Your task to perform on an android device: Open Chrome and go to settings Image 0: 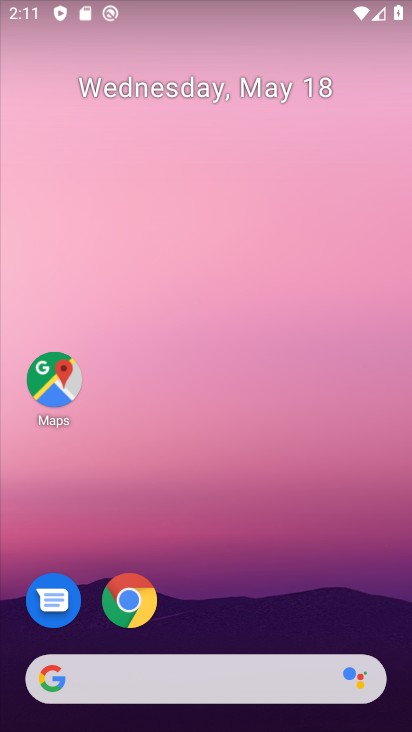
Step 0: press home button
Your task to perform on an android device: Open Chrome and go to settings Image 1: 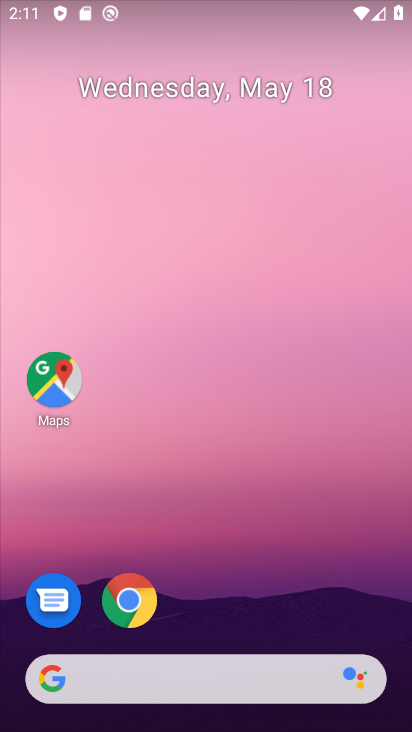
Step 1: click (130, 613)
Your task to perform on an android device: Open Chrome and go to settings Image 2: 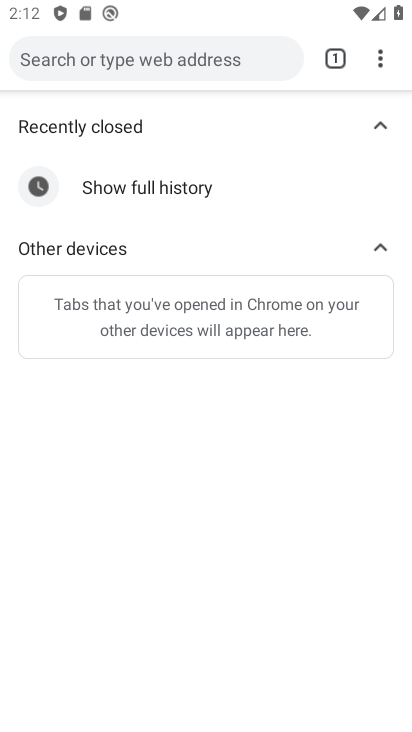
Step 2: task complete